Your task to perform on an android device: What's on Reddit today Image 0: 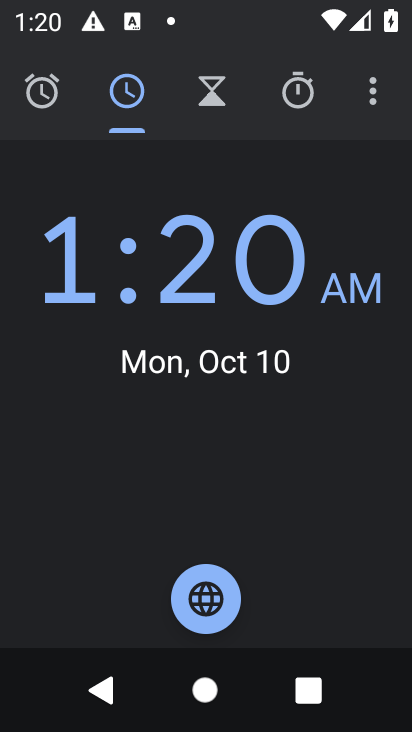
Step 0: press home button
Your task to perform on an android device: What's on Reddit today Image 1: 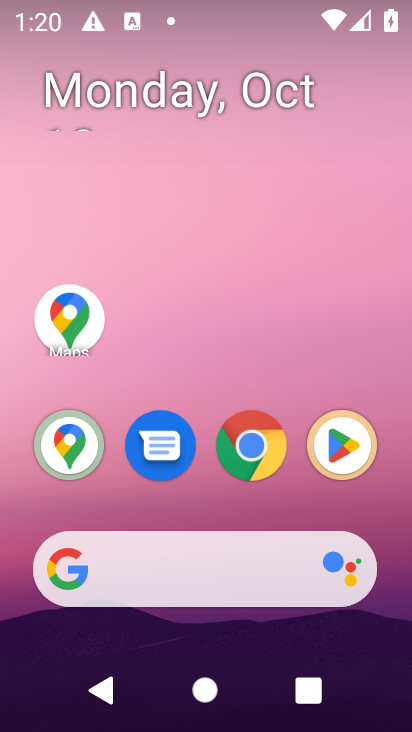
Step 1: click (128, 564)
Your task to perform on an android device: What's on Reddit today Image 2: 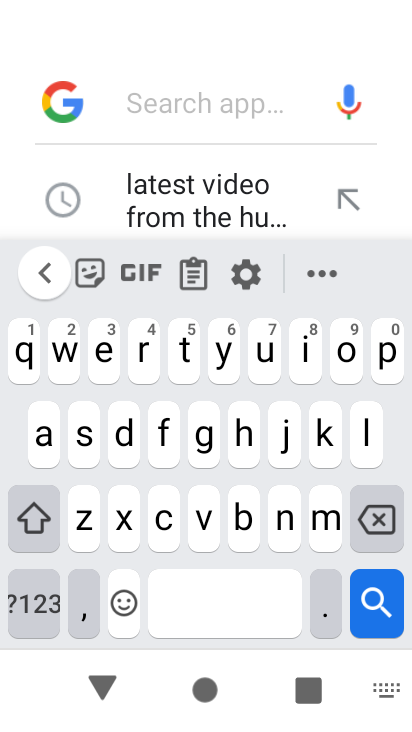
Step 2: type "whats on reddit today"
Your task to perform on an android device: What's on Reddit today Image 3: 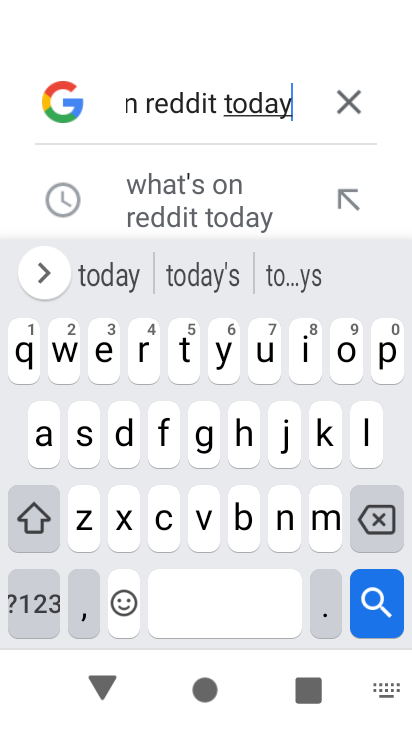
Step 3: click (206, 204)
Your task to perform on an android device: What's on Reddit today Image 4: 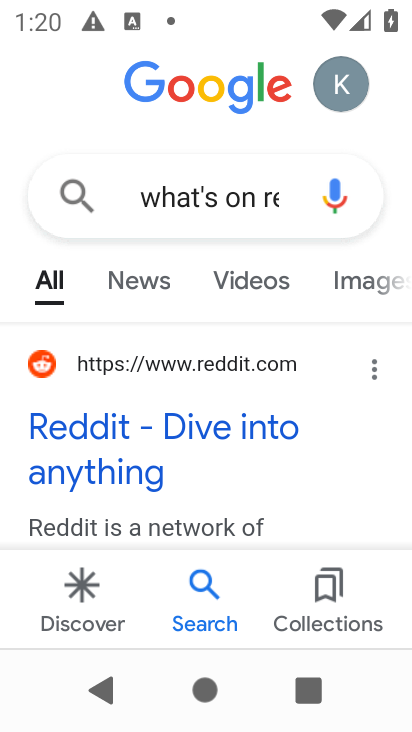
Step 4: click (213, 438)
Your task to perform on an android device: What's on Reddit today Image 5: 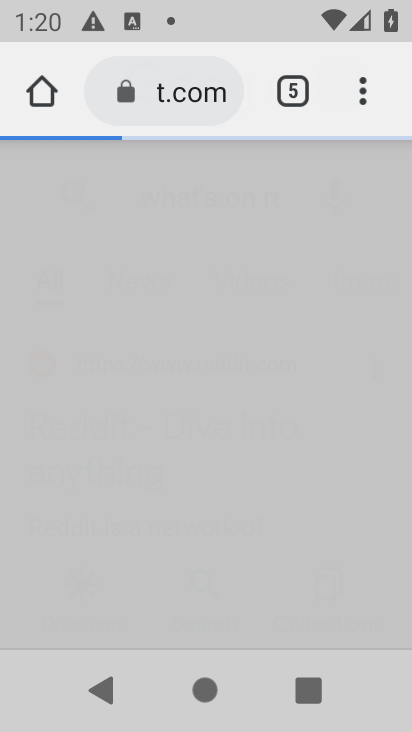
Step 5: task complete